Your task to perform on an android device: What's on my calendar today? Image 0: 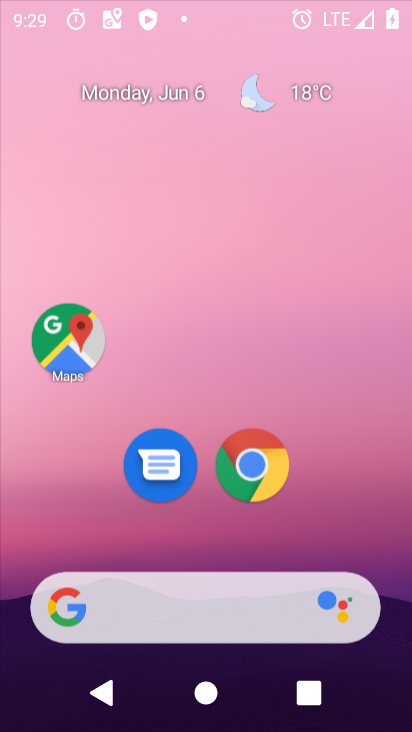
Step 0: click (352, 136)
Your task to perform on an android device: What's on my calendar today? Image 1: 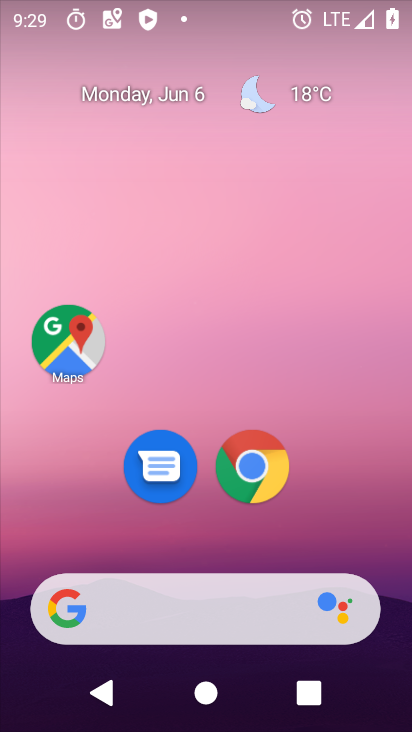
Step 1: drag from (193, 540) to (207, 150)
Your task to perform on an android device: What's on my calendar today? Image 2: 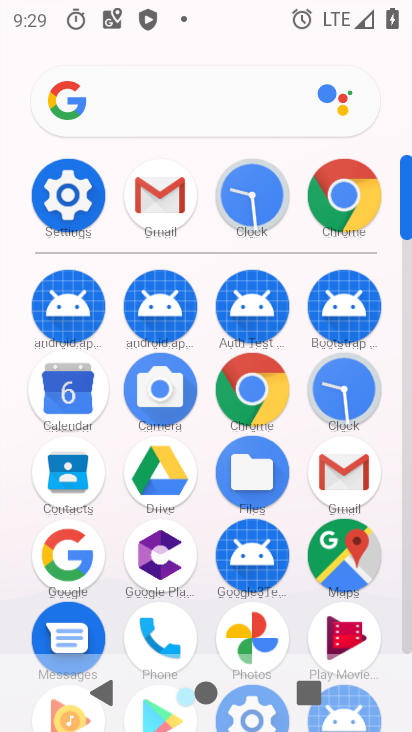
Step 2: click (66, 398)
Your task to perform on an android device: What's on my calendar today? Image 3: 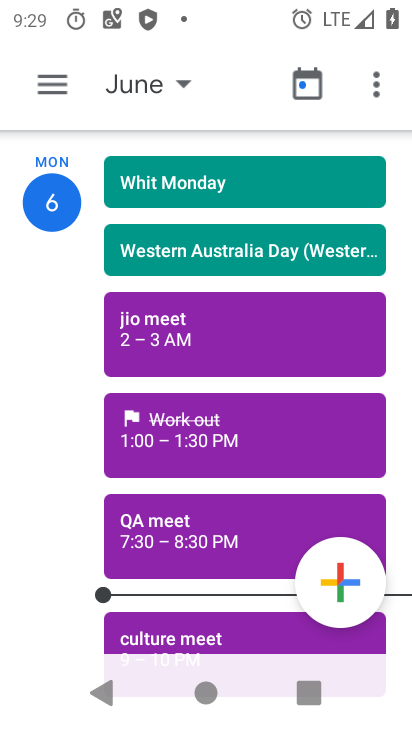
Step 3: drag from (213, 538) to (255, 120)
Your task to perform on an android device: What's on my calendar today? Image 4: 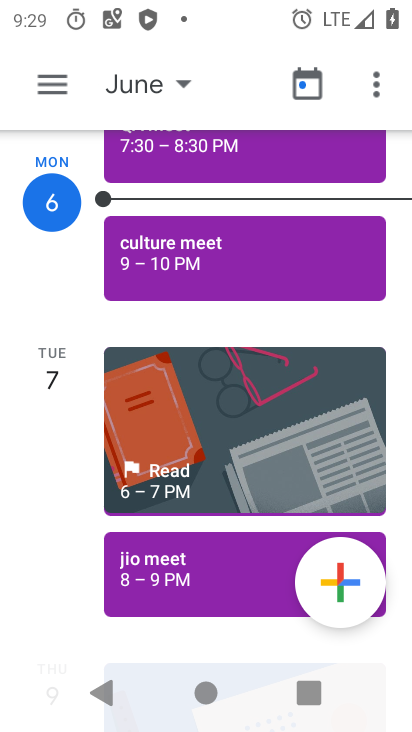
Step 4: drag from (222, 538) to (268, 205)
Your task to perform on an android device: What's on my calendar today? Image 5: 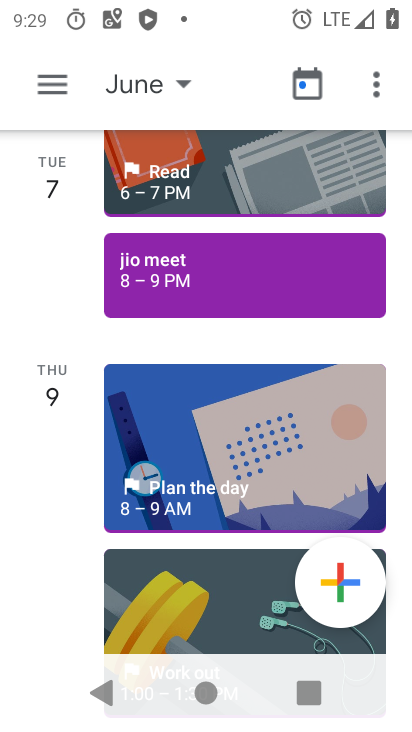
Step 5: drag from (183, 236) to (170, 670)
Your task to perform on an android device: What's on my calendar today? Image 6: 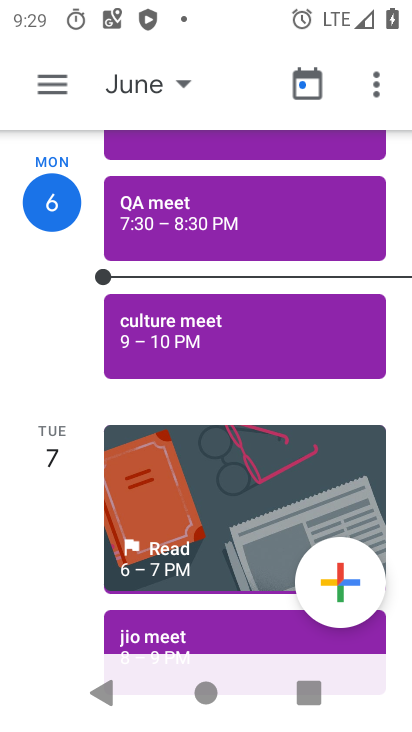
Step 6: drag from (227, 201) to (268, 506)
Your task to perform on an android device: What's on my calendar today? Image 7: 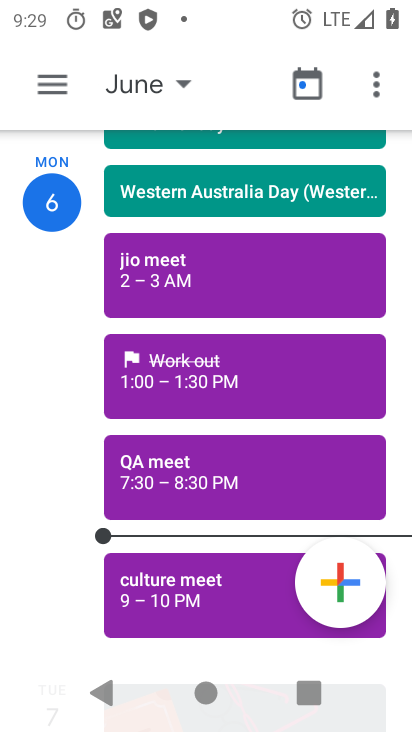
Step 7: click (202, 283)
Your task to perform on an android device: What's on my calendar today? Image 8: 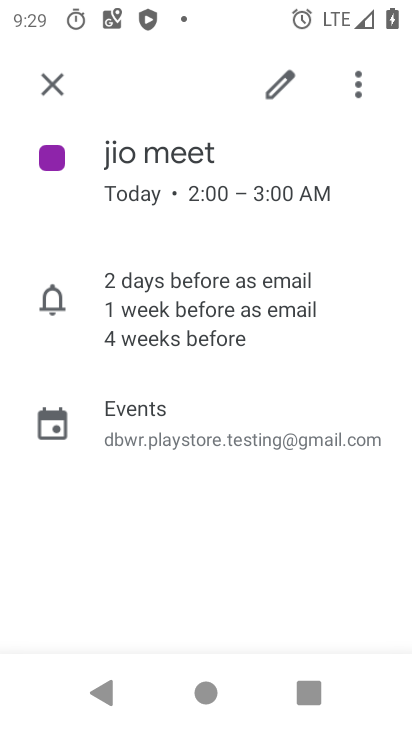
Step 8: task complete